Your task to perform on an android device: turn off priority inbox in the gmail app Image 0: 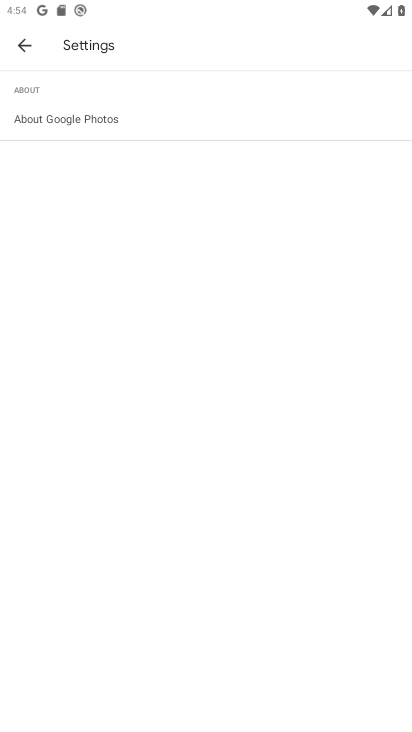
Step 0: press home button
Your task to perform on an android device: turn off priority inbox in the gmail app Image 1: 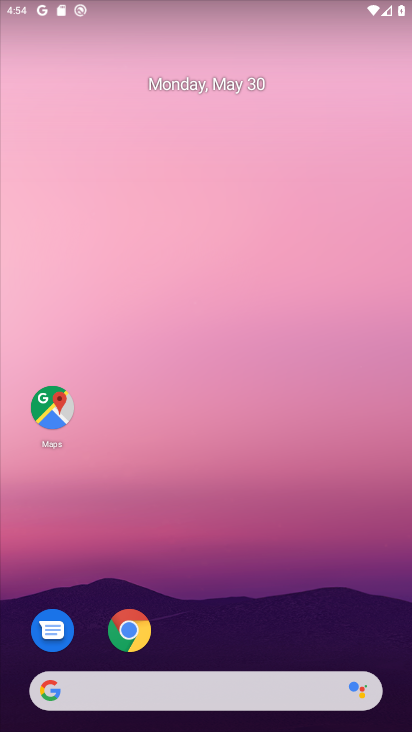
Step 1: drag from (254, 636) to (304, 55)
Your task to perform on an android device: turn off priority inbox in the gmail app Image 2: 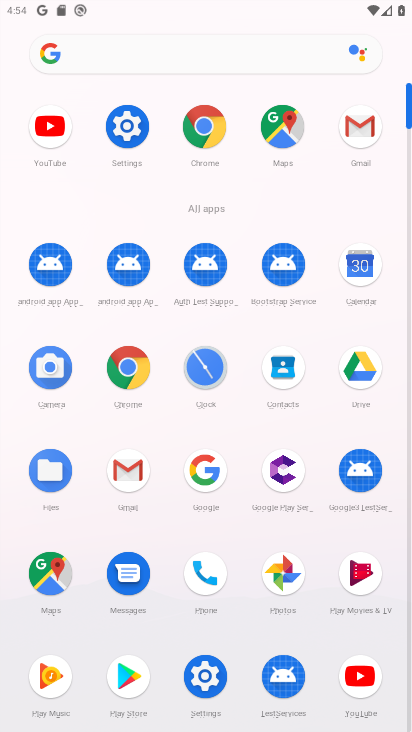
Step 2: click (359, 126)
Your task to perform on an android device: turn off priority inbox in the gmail app Image 3: 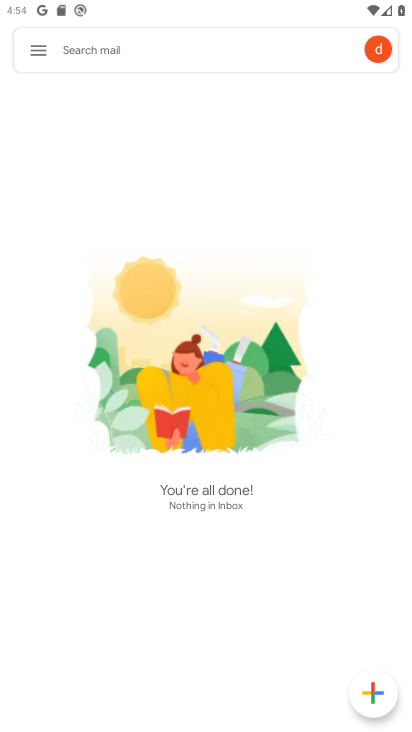
Step 3: click (44, 59)
Your task to perform on an android device: turn off priority inbox in the gmail app Image 4: 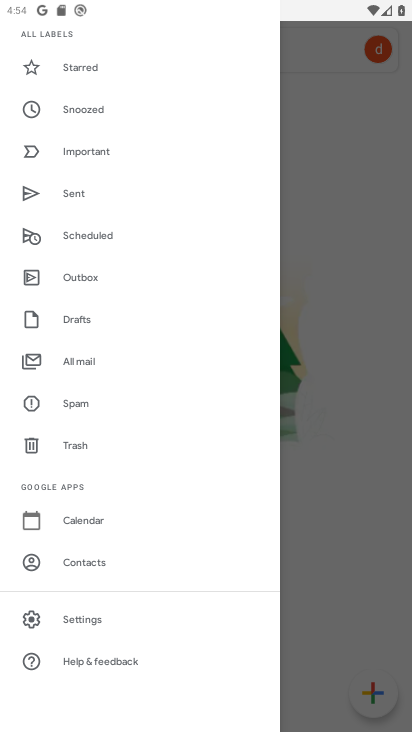
Step 4: click (84, 625)
Your task to perform on an android device: turn off priority inbox in the gmail app Image 5: 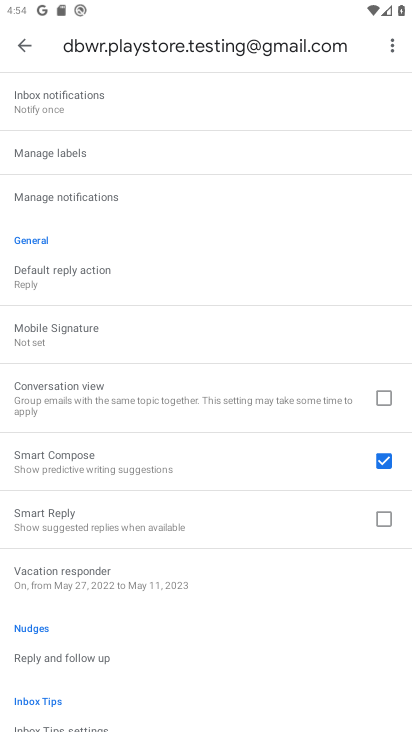
Step 5: drag from (141, 229) to (123, 418)
Your task to perform on an android device: turn off priority inbox in the gmail app Image 6: 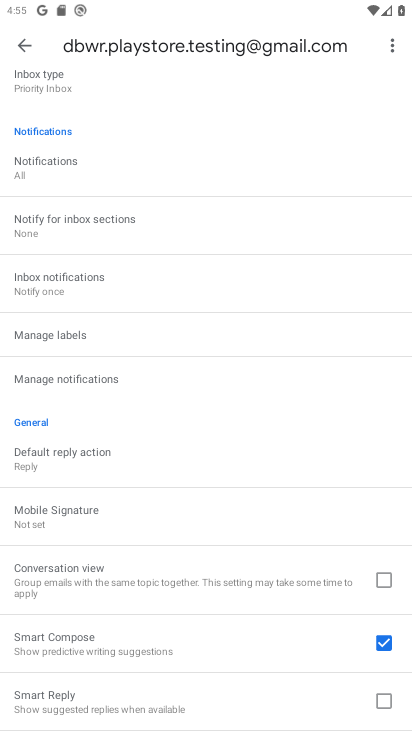
Step 6: click (31, 72)
Your task to perform on an android device: turn off priority inbox in the gmail app Image 7: 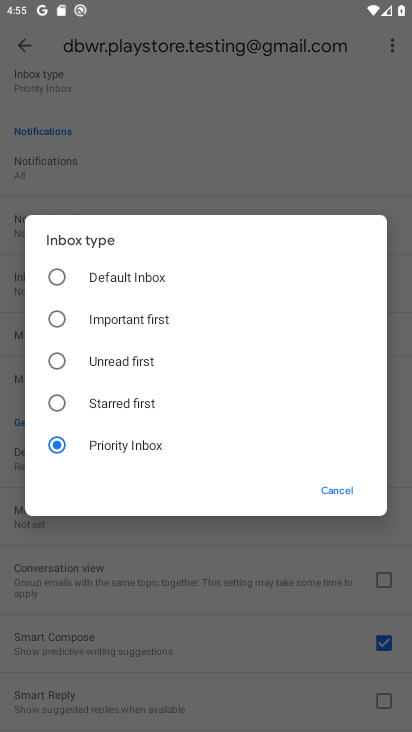
Step 7: click (65, 273)
Your task to perform on an android device: turn off priority inbox in the gmail app Image 8: 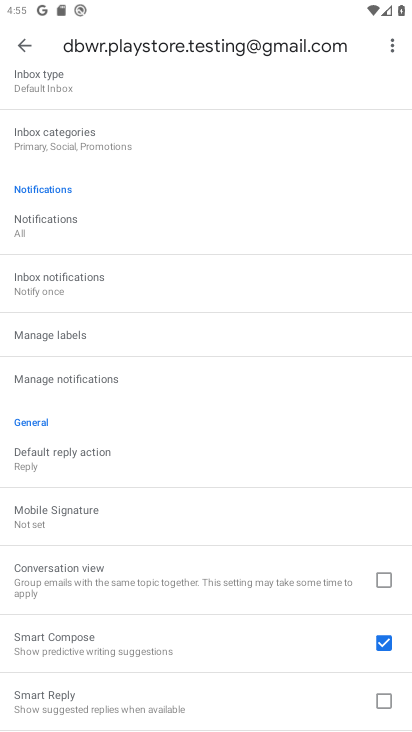
Step 8: task complete